Your task to perform on an android device: Go to privacy settings Image 0: 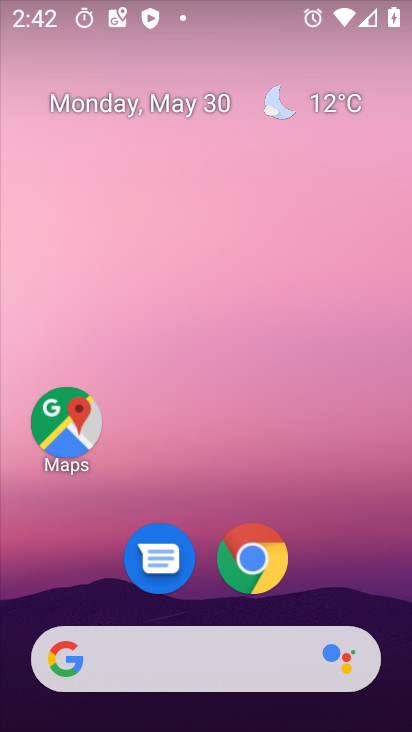
Step 0: drag from (203, 292) to (196, 3)
Your task to perform on an android device: Go to privacy settings Image 1: 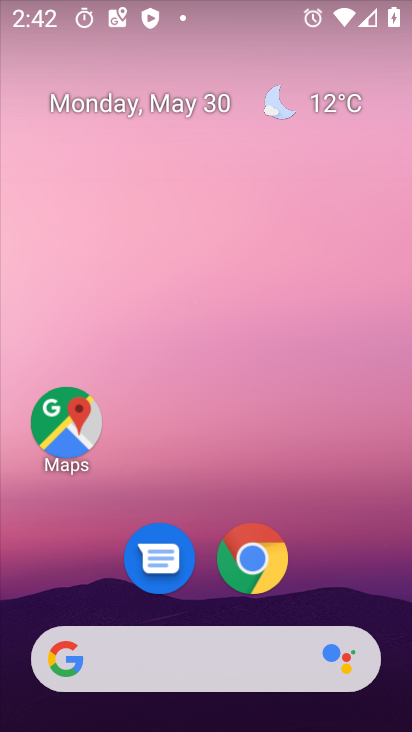
Step 1: drag from (252, 468) to (259, 60)
Your task to perform on an android device: Go to privacy settings Image 2: 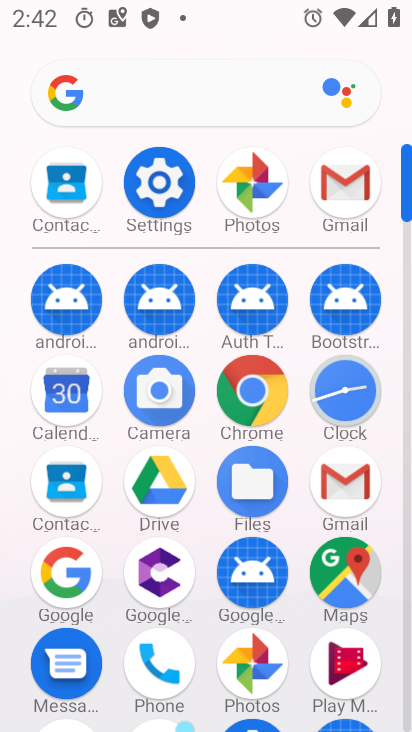
Step 2: click (167, 173)
Your task to perform on an android device: Go to privacy settings Image 3: 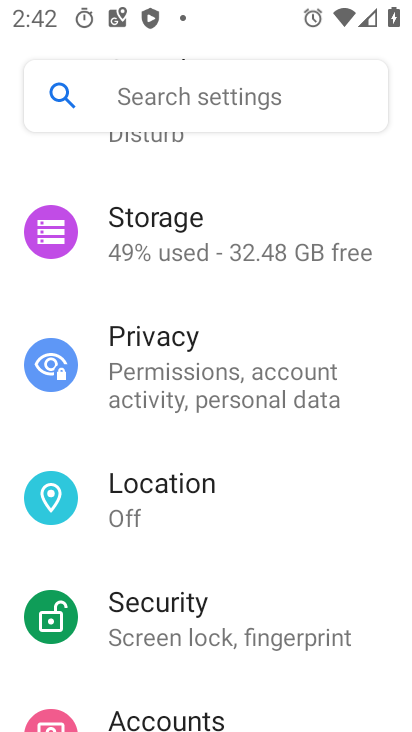
Step 3: click (143, 375)
Your task to perform on an android device: Go to privacy settings Image 4: 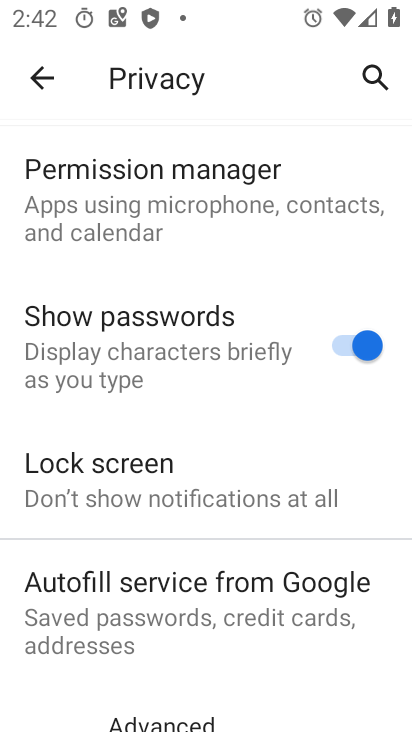
Step 4: task complete